Your task to perform on an android device: Play the last video I watched on Youtube Image 0: 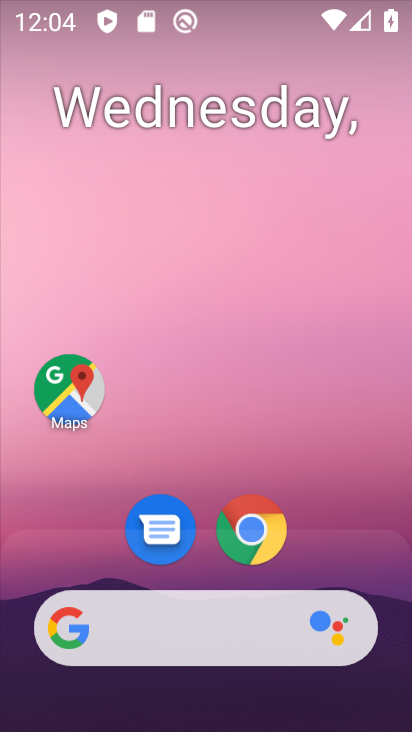
Step 0: drag from (398, 633) to (315, 71)
Your task to perform on an android device: Play the last video I watched on Youtube Image 1: 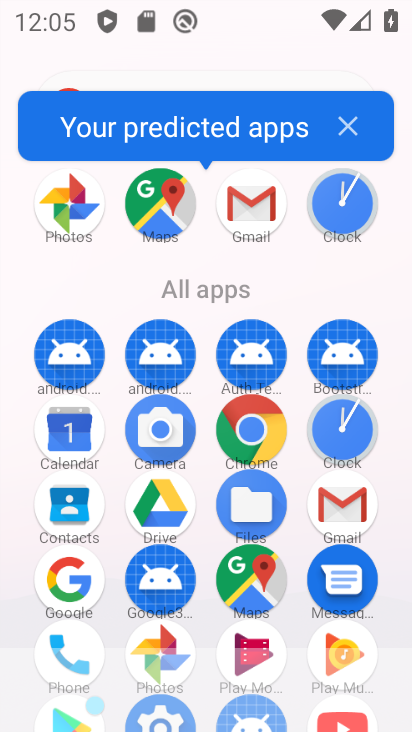
Step 1: click (406, 660)
Your task to perform on an android device: Play the last video I watched on Youtube Image 2: 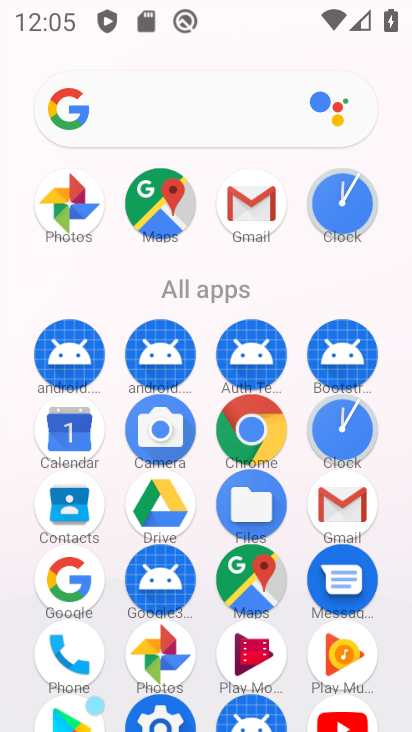
Step 2: drag from (402, 665) to (368, 321)
Your task to perform on an android device: Play the last video I watched on Youtube Image 3: 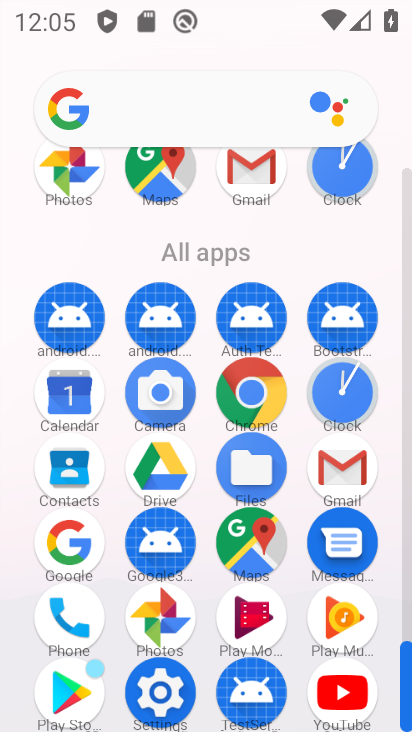
Step 3: click (339, 691)
Your task to perform on an android device: Play the last video I watched on Youtube Image 4: 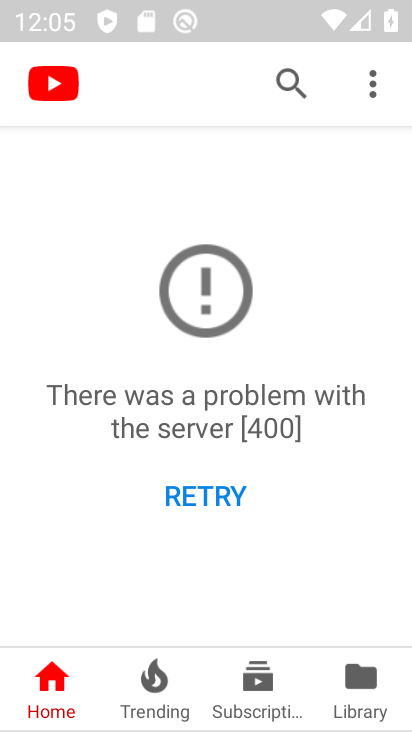
Step 4: click (370, 685)
Your task to perform on an android device: Play the last video I watched on Youtube Image 5: 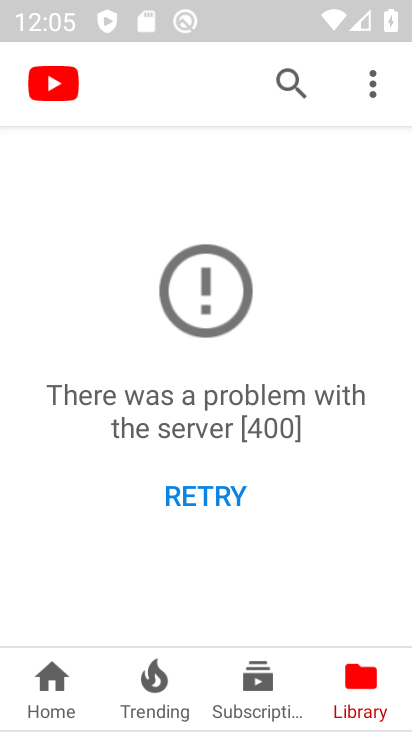
Step 5: click (192, 494)
Your task to perform on an android device: Play the last video I watched on Youtube Image 6: 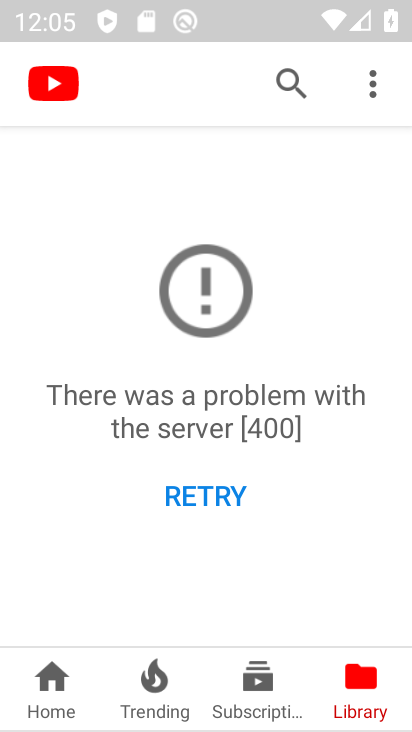
Step 6: click (192, 494)
Your task to perform on an android device: Play the last video I watched on Youtube Image 7: 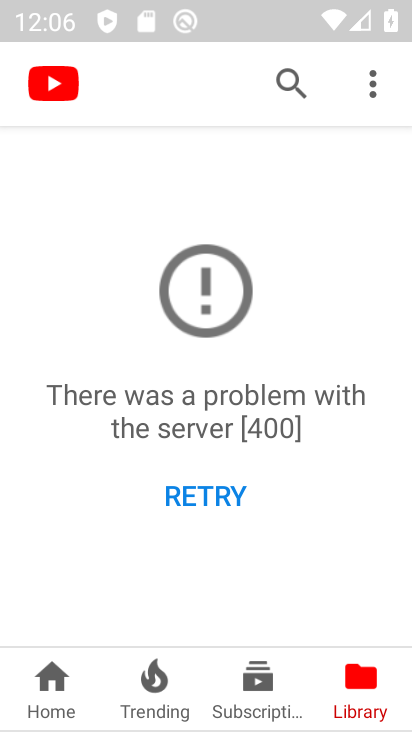
Step 7: task complete